Your task to perform on an android device: delete a single message in the gmail app Image 0: 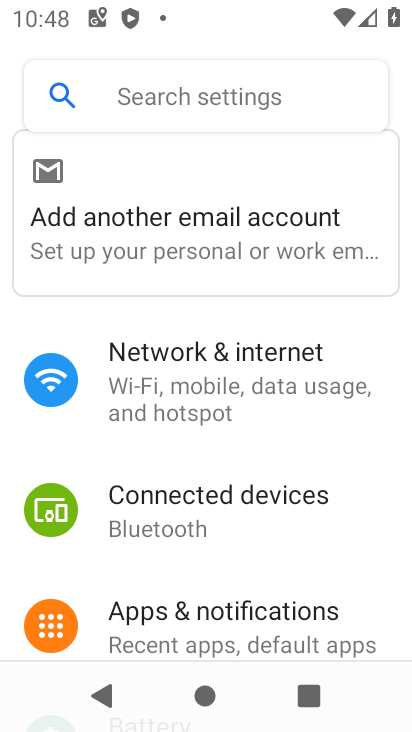
Step 0: press home button
Your task to perform on an android device: delete a single message in the gmail app Image 1: 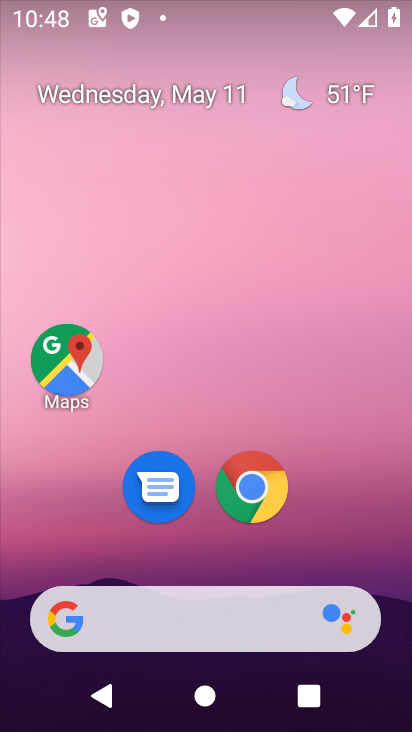
Step 1: drag from (331, 506) to (341, 214)
Your task to perform on an android device: delete a single message in the gmail app Image 2: 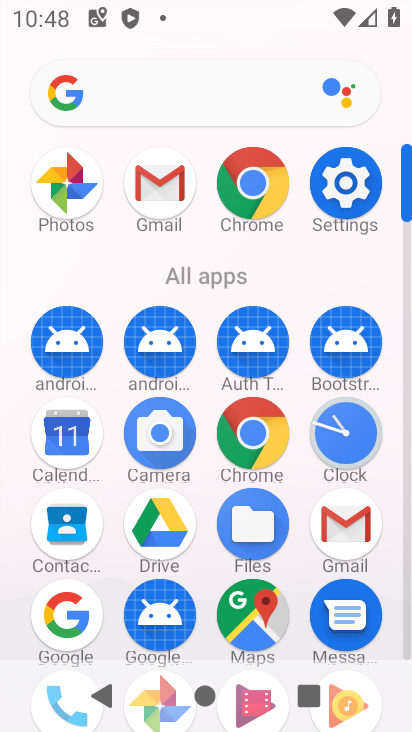
Step 2: click (359, 541)
Your task to perform on an android device: delete a single message in the gmail app Image 3: 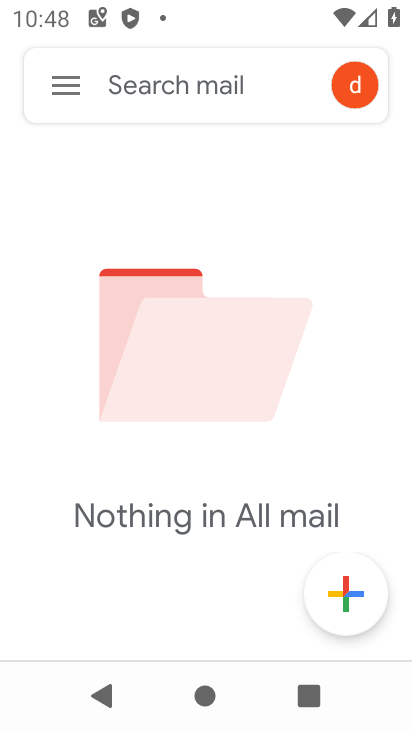
Step 3: click (61, 95)
Your task to perform on an android device: delete a single message in the gmail app Image 4: 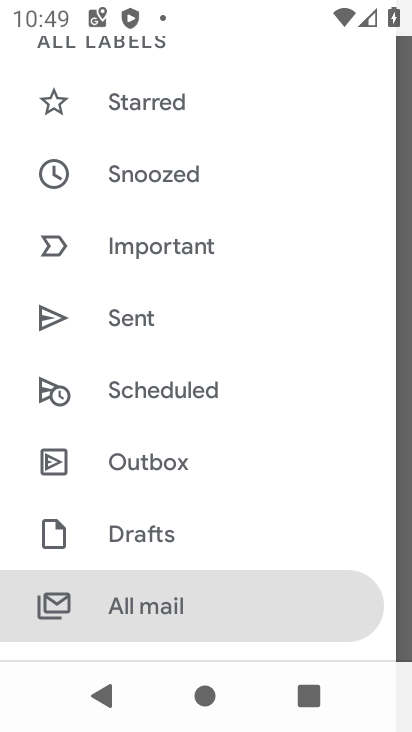
Step 4: drag from (164, 178) to (202, 552)
Your task to perform on an android device: delete a single message in the gmail app Image 5: 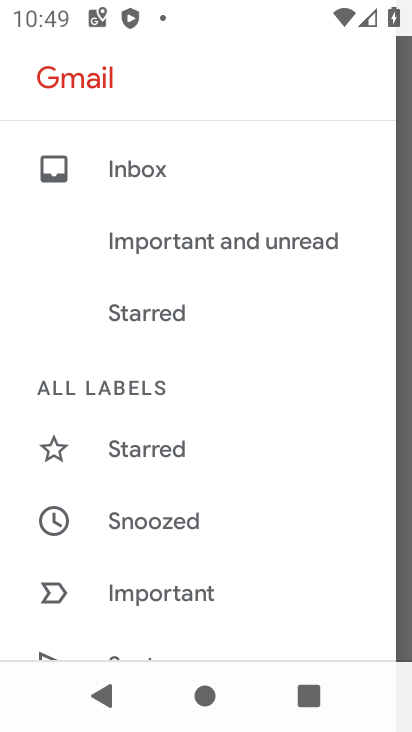
Step 5: click (155, 162)
Your task to perform on an android device: delete a single message in the gmail app Image 6: 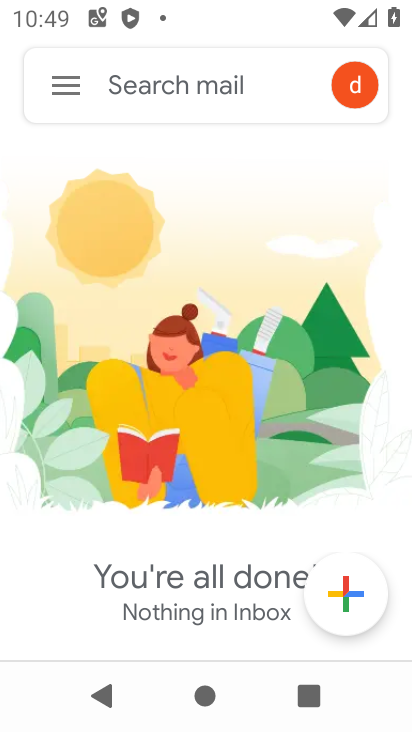
Step 6: task complete